Your task to perform on an android device: empty trash in the gmail app Image 0: 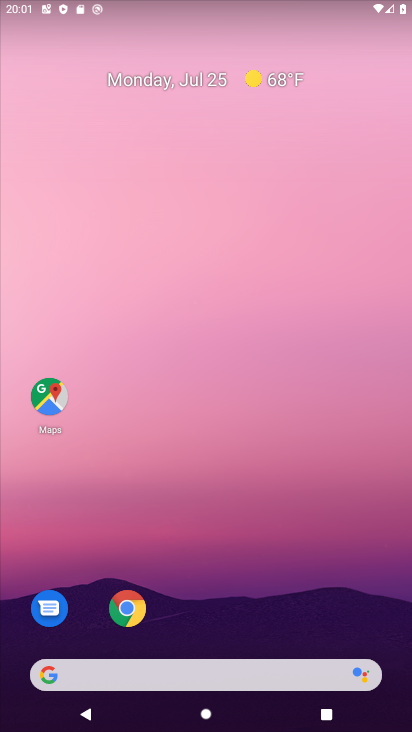
Step 0: drag from (281, 638) to (216, 1)
Your task to perform on an android device: empty trash in the gmail app Image 1: 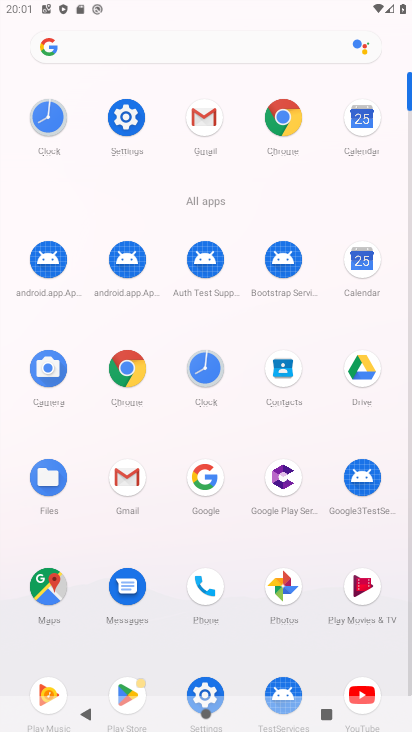
Step 1: click (206, 123)
Your task to perform on an android device: empty trash in the gmail app Image 2: 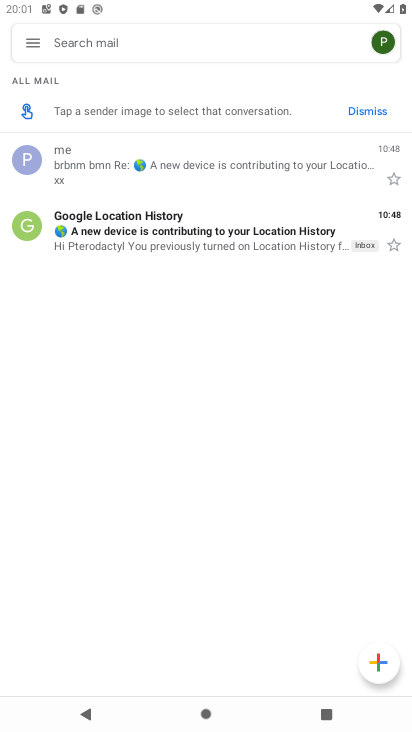
Step 2: click (36, 43)
Your task to perform on an android device: empty trash in the gmail app Image 3: 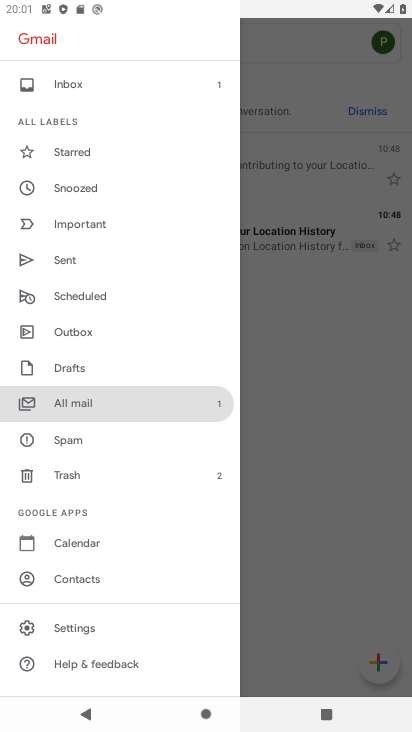
Step 3: click (71, 478)
Your task to perform on an android device: empty trash in the gmail app Image 4: 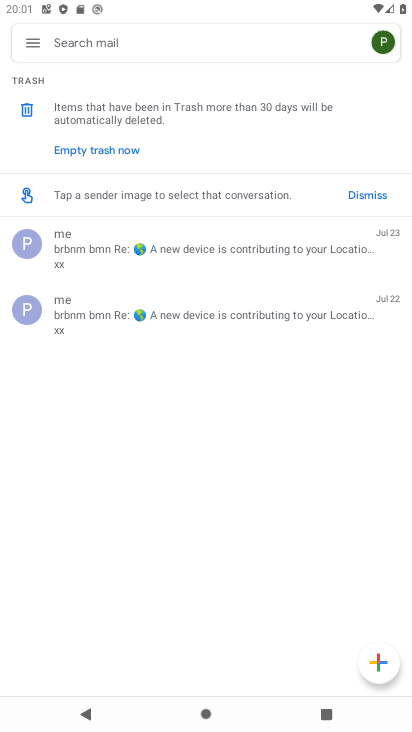
Step 4: click (66, 150)
Your task to perform on an android device: empty trash in the gmail app Image 5: 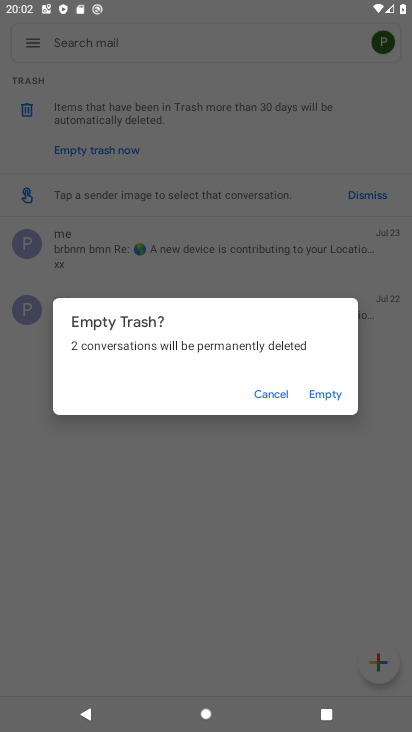
Step 5: click (327, 399)
Your task to perform on an android device: empty trash in the gmail app Image 6: 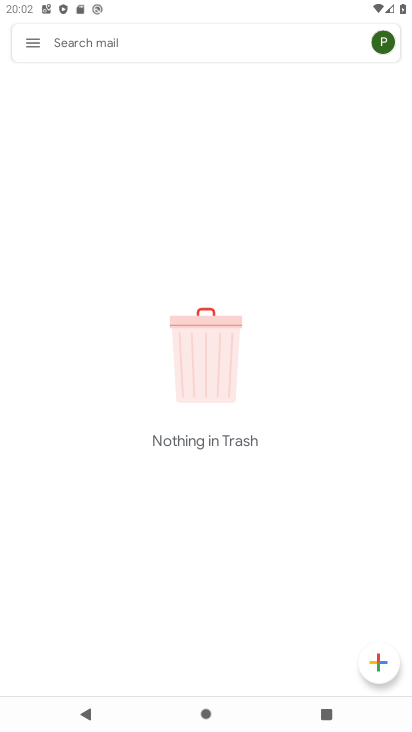
Step 6: task complete